Your task to perform on an android device: see tabs open on other devices in the chrome app Image 0: 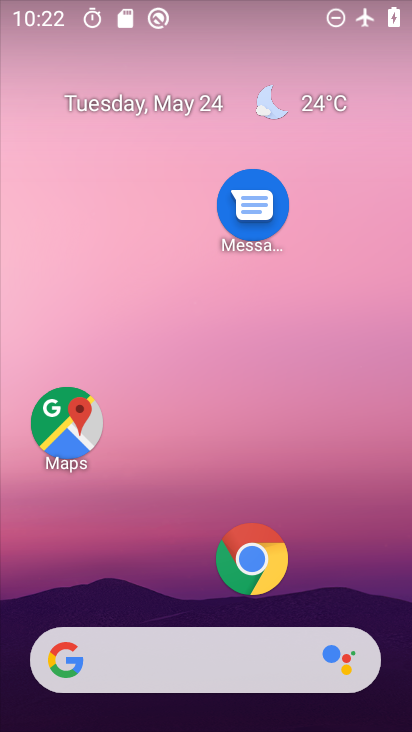
Step 0: click (236, 551)
Your task to perform on an android device: see tabs open on other devices in the chrome app Image 1: 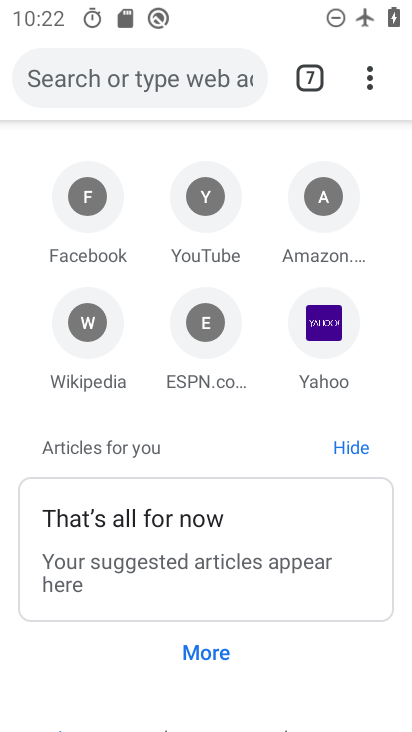
Step 1: task complete